Your task to perform on an android device: Go to Yahoo.com Image 0: 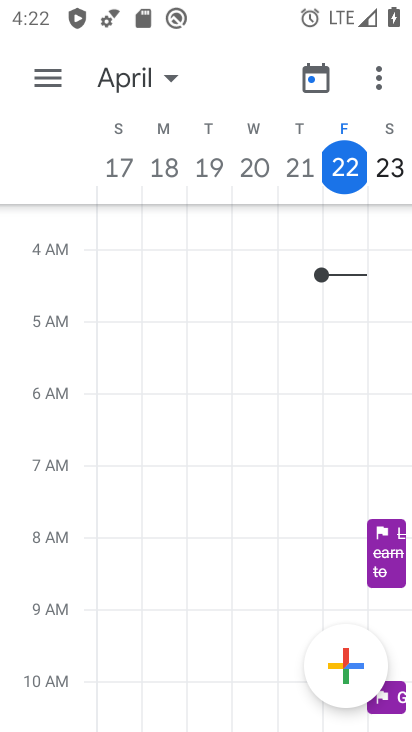
Step 0: press home button
Your task to perform on an android device: Go to Yahoo.com Image 1: 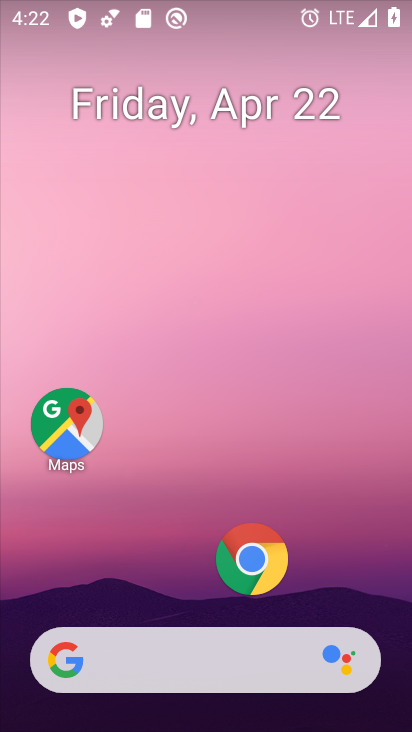
Step 1: click (262, 570)
Your task to perform on an android device: Go to Yahoo.com Image 2: 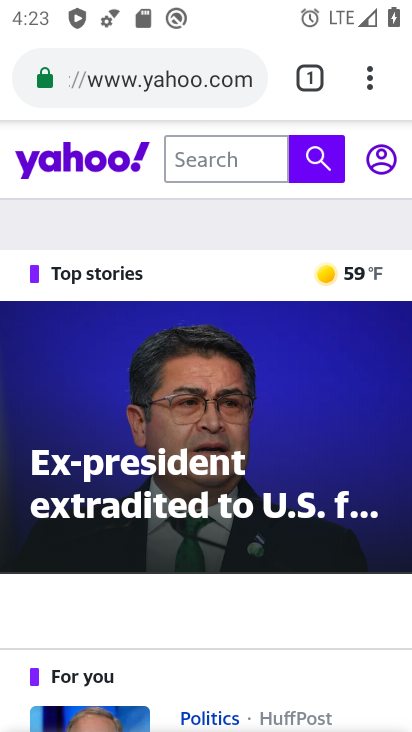
Step 2: task complete